Your task to perform on an android device: snooze an email in the gmail app Image 0: 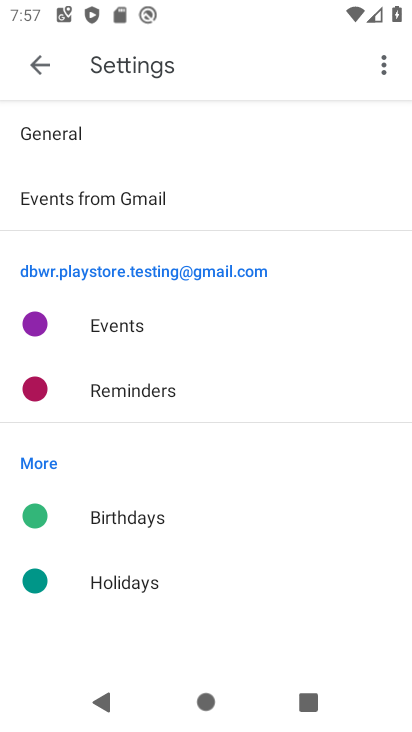
Step 0: click (353, 45)
Your task to perform on an android device: snooze an email in the gmail app Image 1: 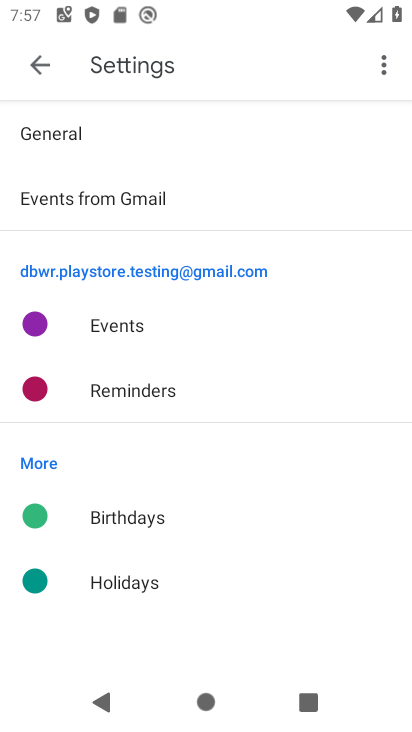
Step 1: press home button
Your task to perform on an android device: snooze an email in the gmail app Image 2: 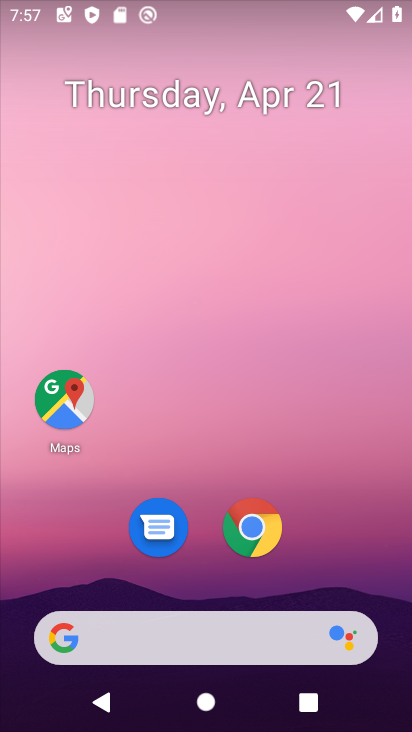
Step 2: drag from (252, 677) to (343, 233)
Your task to perform on an android device: snooze an email in the gmail app Image 3: 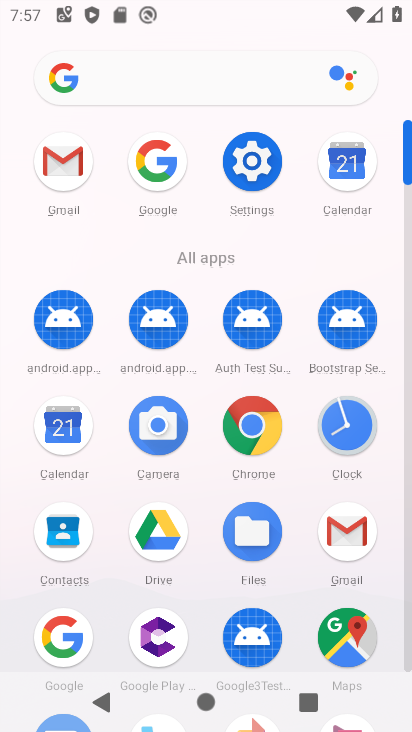
Step 3: click (356, 537)
Your task to perform on an android device: snooze an email in the gmail app Image 4: 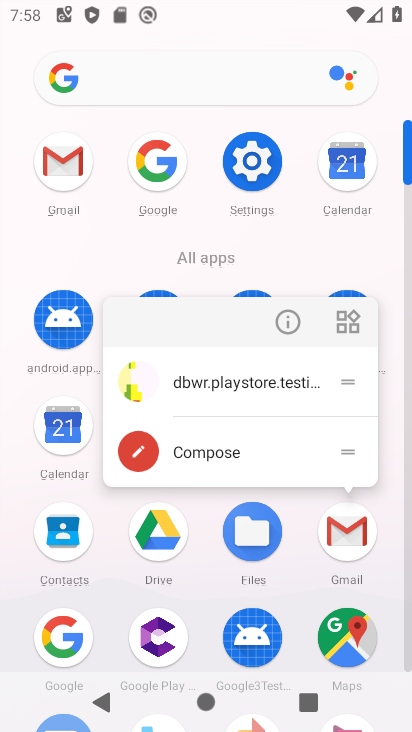
Step 4: click (359, 536)
Your task to perform on an android device: snooze an email in the gmail app Image 5: 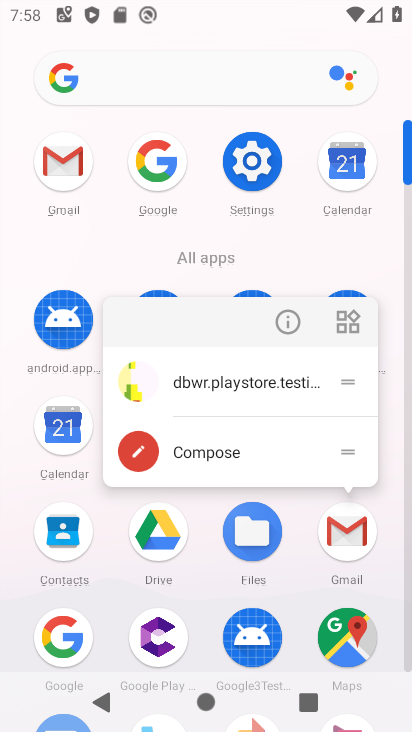
Step 5: click (361, 525)
Your task to perform on an android device: snooze an email in the gmail app Image 6: 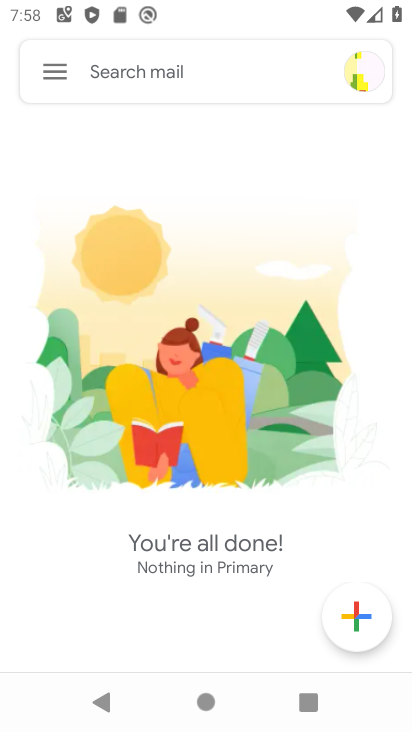
Step 6: click (64, 69)
Your task to perform on an android device: snooze an email in the gmail app Image 7: 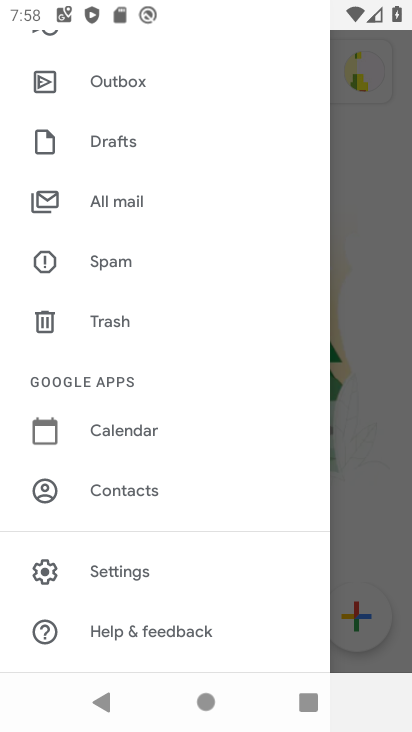
Step 7: click (133, 217)
Your task to perform on an android device: snooze an email in the gmail app Image 8: 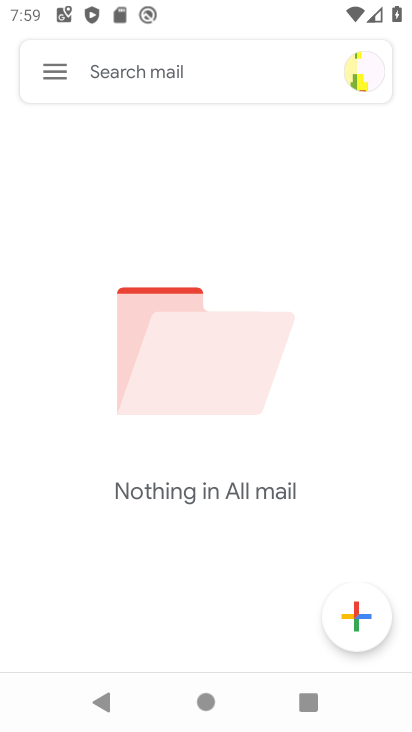
Step 8: task complete